Your task to perform on an android device: check google app version Image 0: 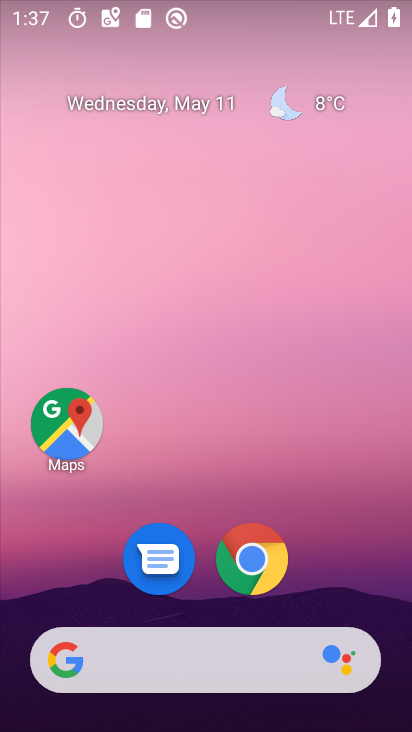
Step 0: drag from (185, 719) to (161, 225)
Your task to perform on an android device: check google app version Image 1: 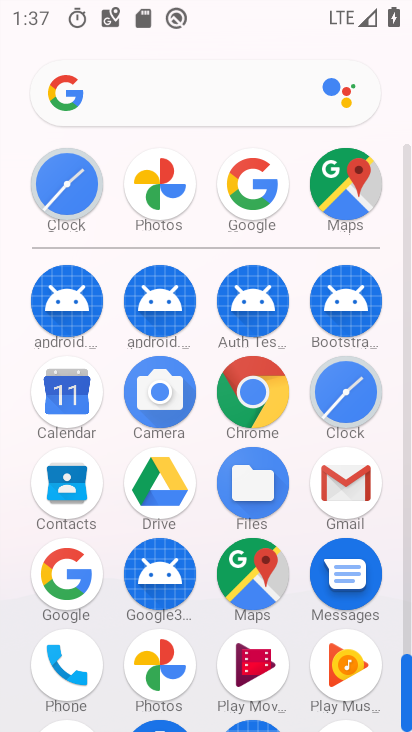
Step 1: click (63, 574)
Your task to perform on an android device: check google app version Image 2: 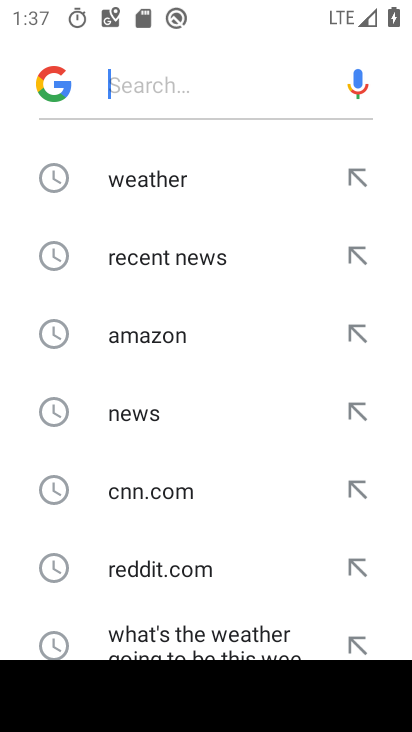
Step 2: click (32, 86)
Your task to perform on an android device: check google app version Image 3: 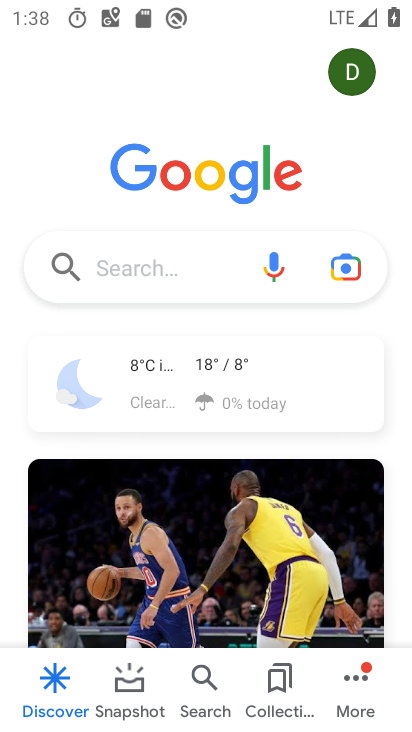
Step 3: click (355, 676)
Your task to perform on an android device: check google app version Image 4: 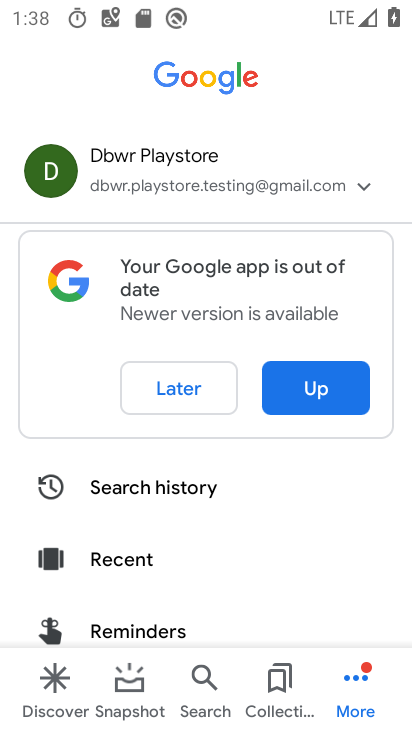
Step 4: drag from (144, 612) to (150, 153)
Your task to perform on an android device: check google app version Image 5: 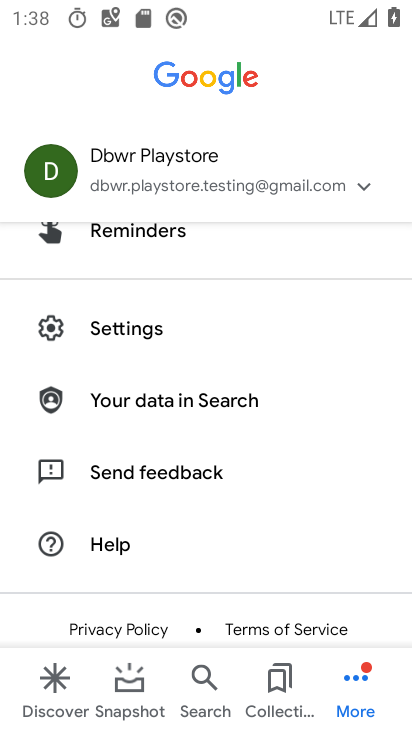
Step 5: click (119, 325)
Your task to perform on an android device: check google app version Image 6: 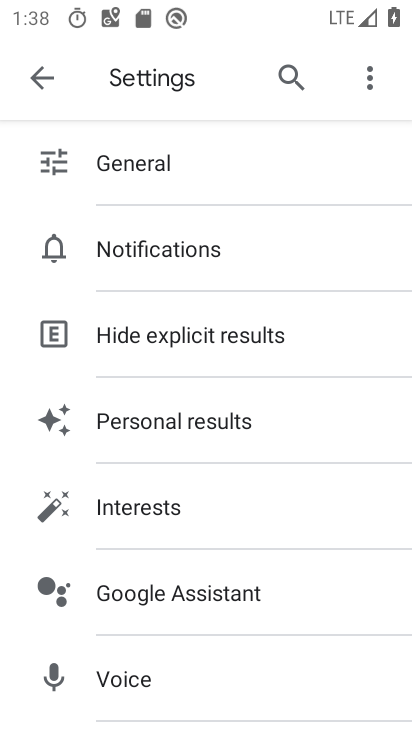
Step 6: drag from (153, 643) to (153, 235)
Your task to perform on an android device: check google app version Image 7: 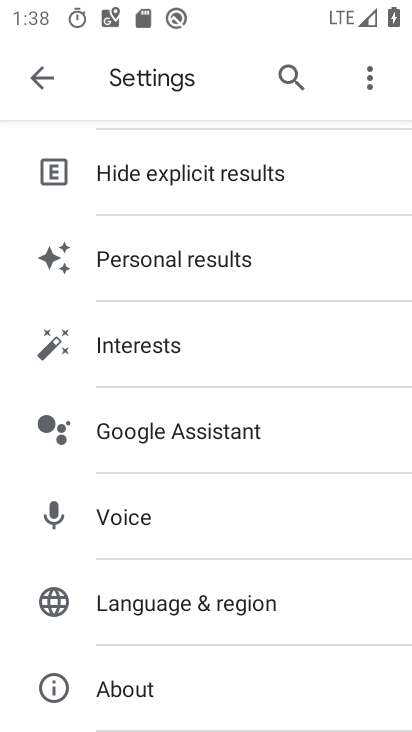
Step 7: click (116, 680)
Your task to perform on an android device: check google app version Image 8: 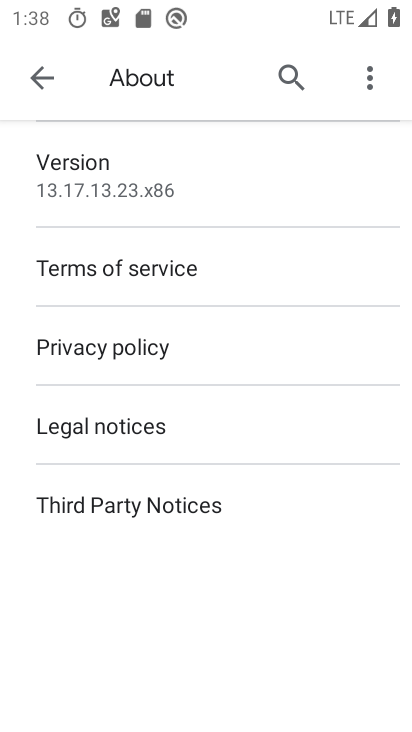
Step 8: task complete